Your task to perform on an android device: How much does a 2 bedroom apartment rent for in Washington DC? Image 0: 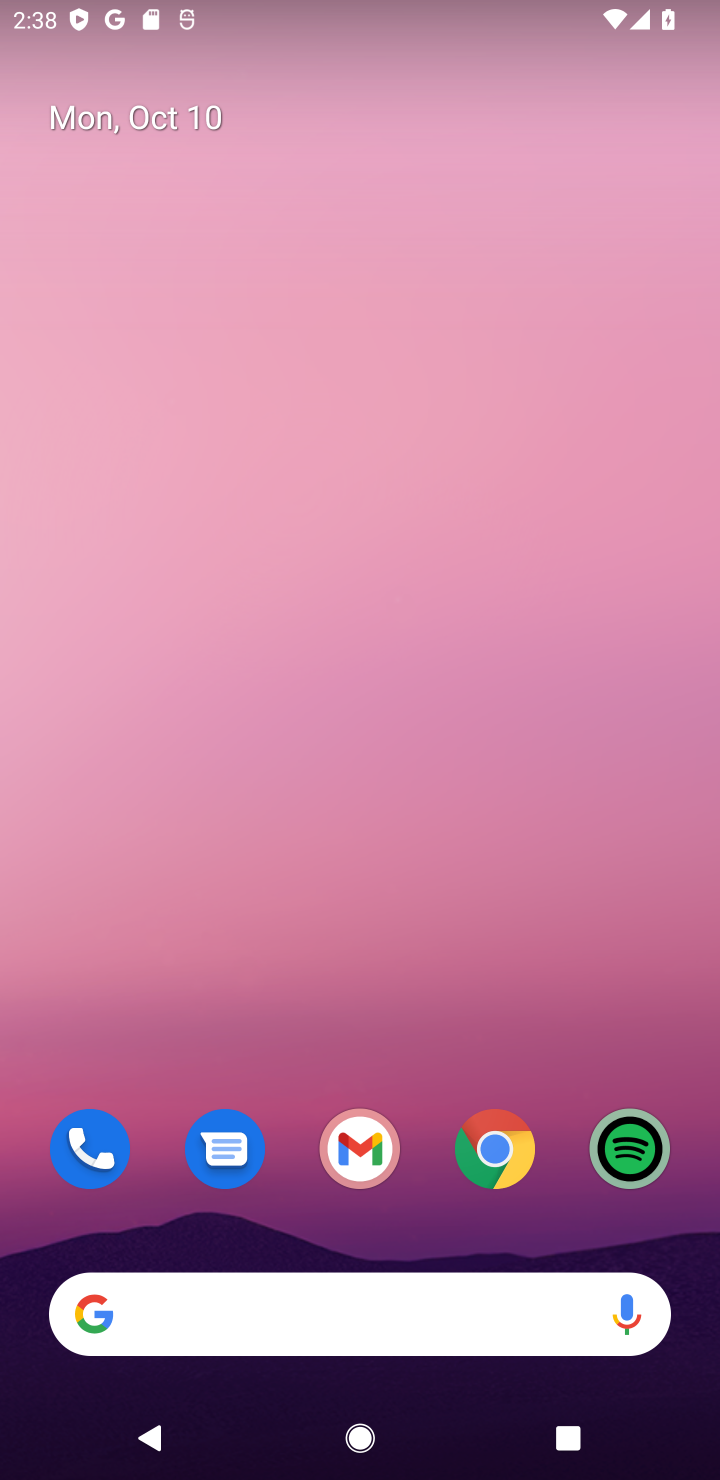
Step 0: click (262, 1289)
Your task to perform on an android device: How much does a 2 bedroom apartment rent for in Washington DC? Image 1: 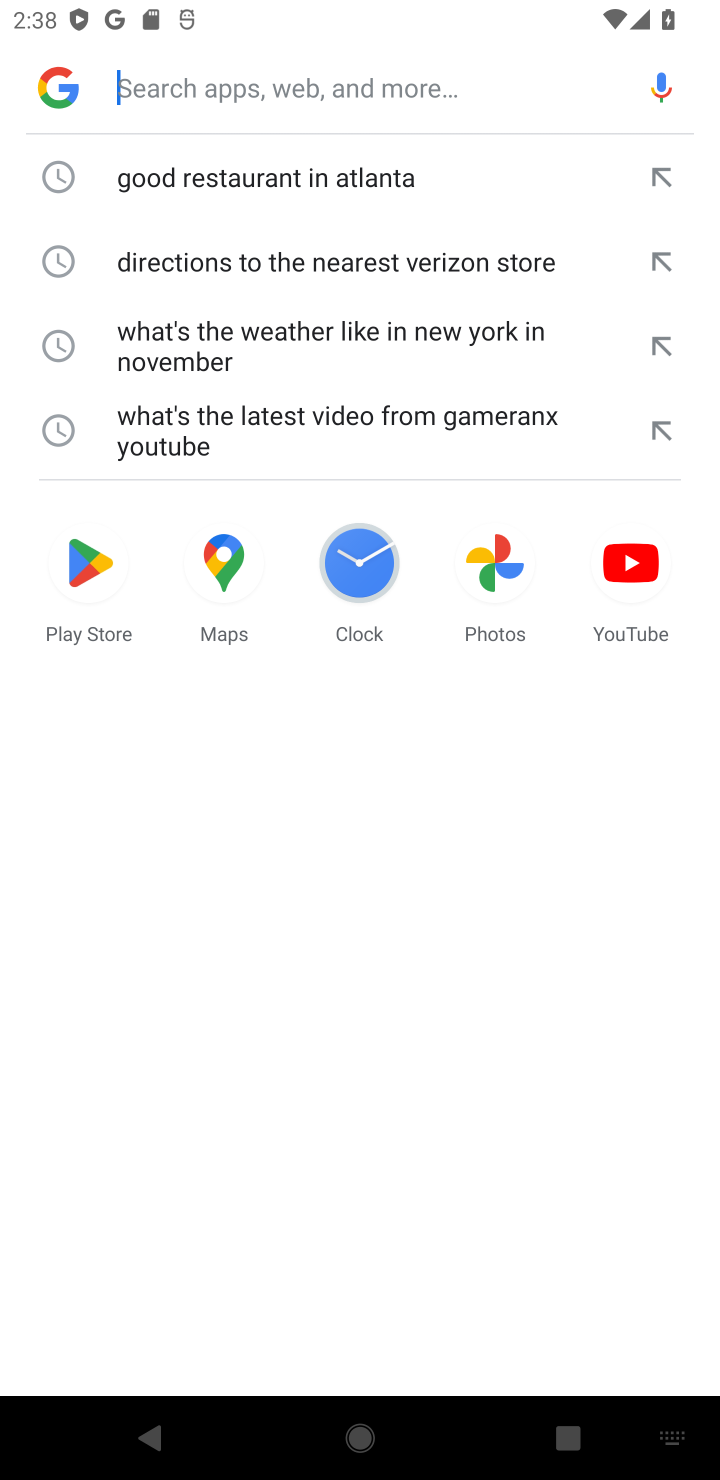
Step 1: type "2 bedroom apartment rent for in Washington DC"
Your task to perform on an android device: How much does a 2 bedroom apartment rent for in Washington DC? Image 2: 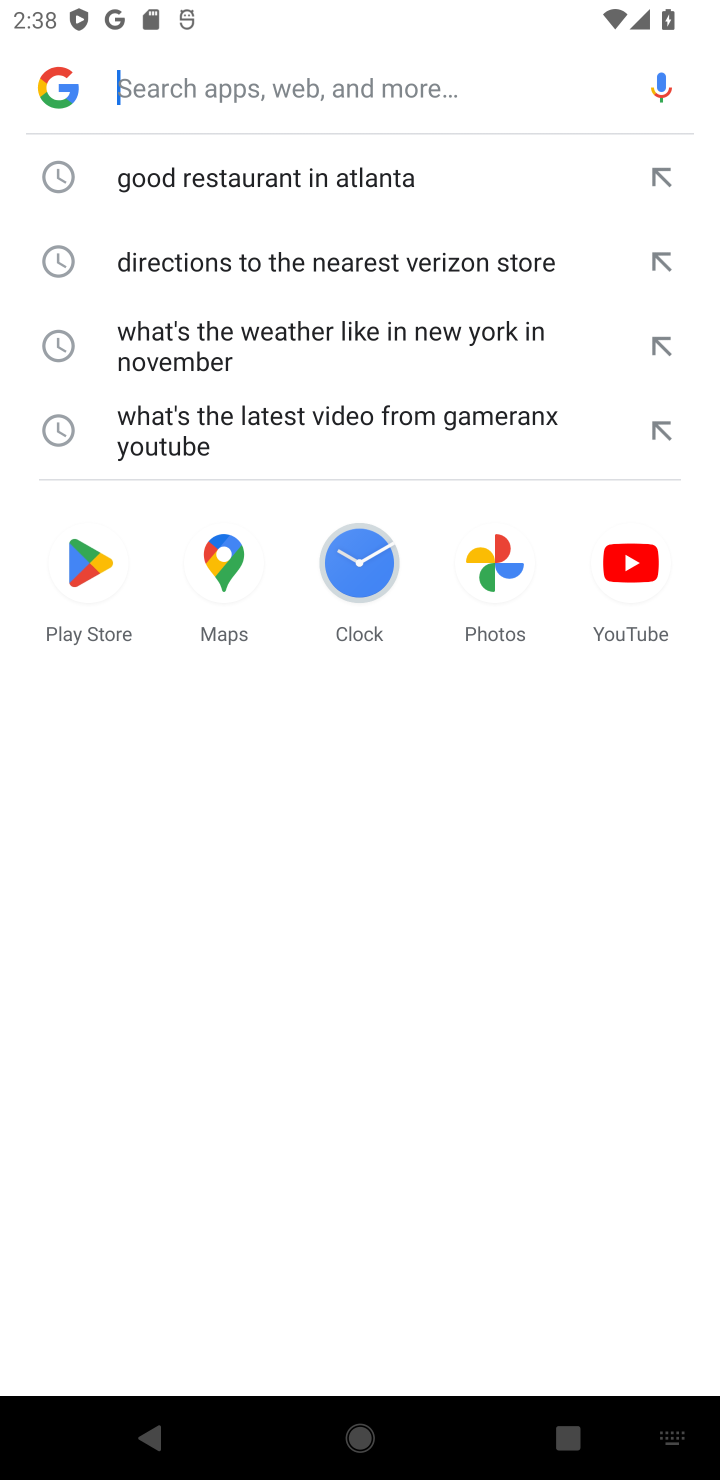
Step 2: click (237, 184)
Your task to perform on an android device: How much does a 2 bedroom apartment rent for in Washington DC? Image 3: 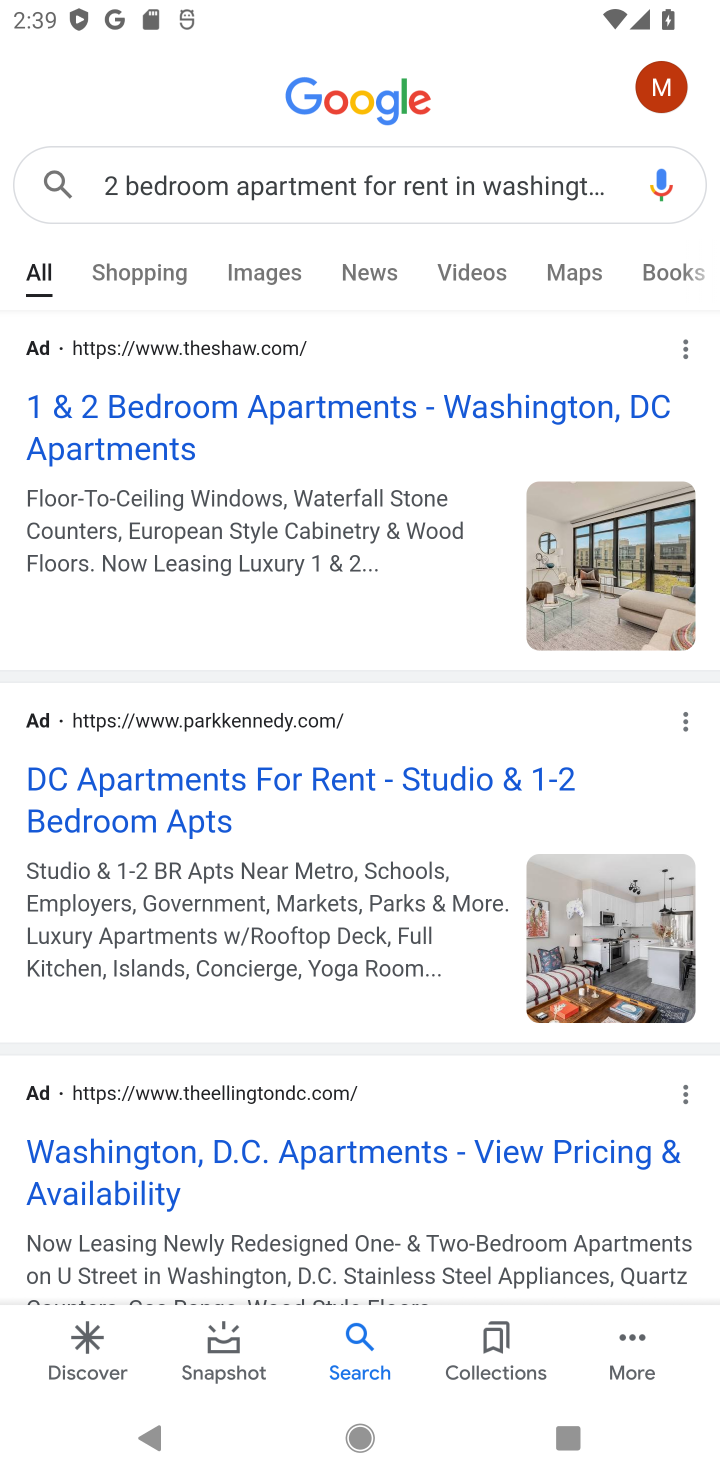
Step 3: click (166, 448)
Your task to perform on an android device: How much does a 2 bedroom apartment rent for in Washington DC? Image 4: 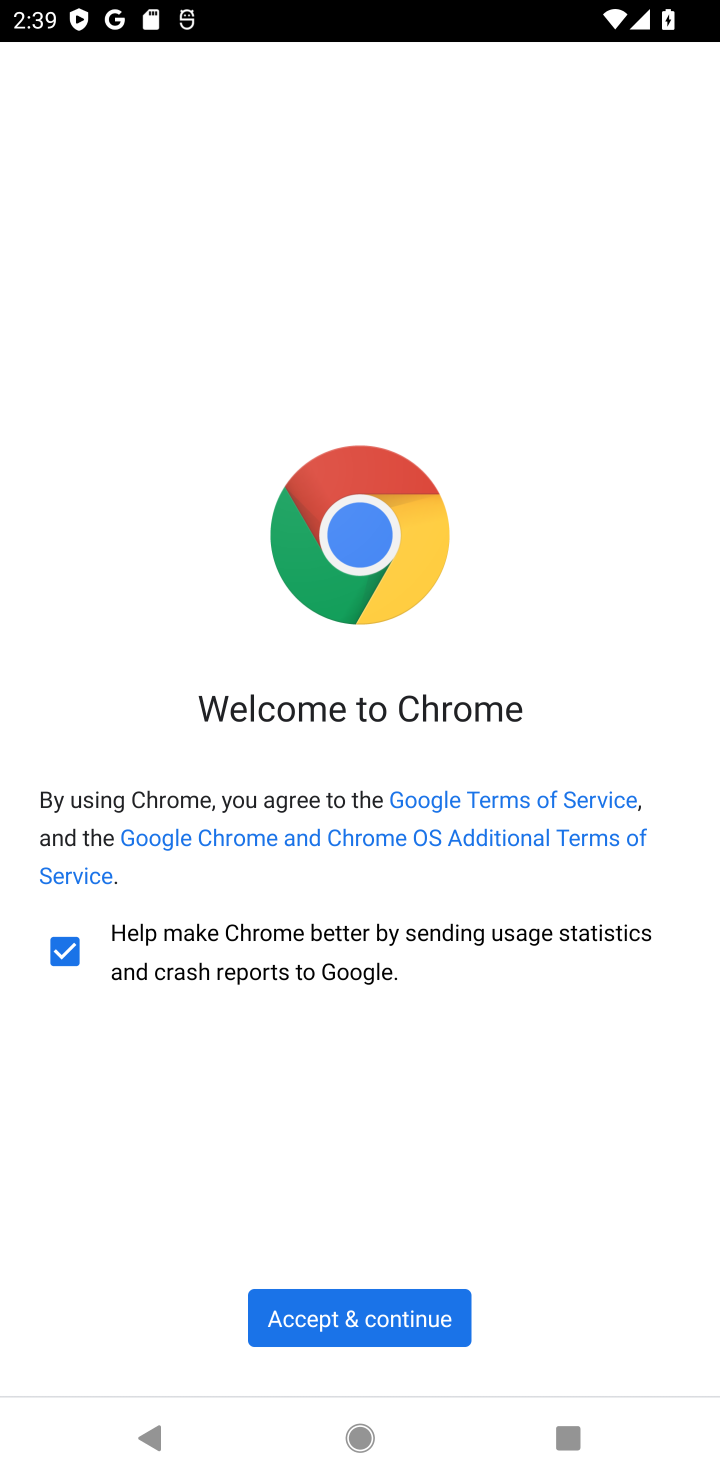
Step 4: click (274, 1304)
Your task to perform on an android device: How much does a 2 bedroom apartment rent for in Washington DC? Image 5: 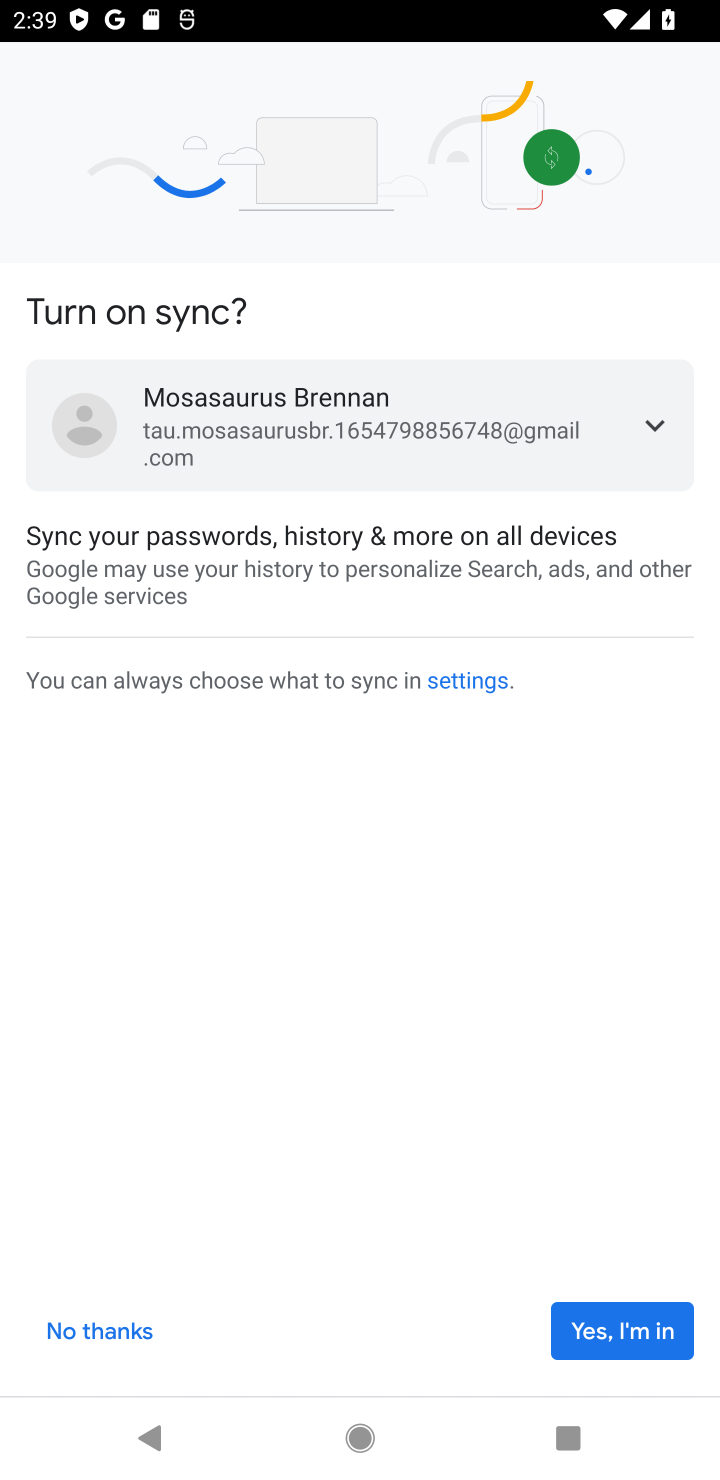
Step 5: click (652, 1328)
Your task to perform on an android device: How much does a 2 bedroom apartment rent for in Washington DC? Image 6: 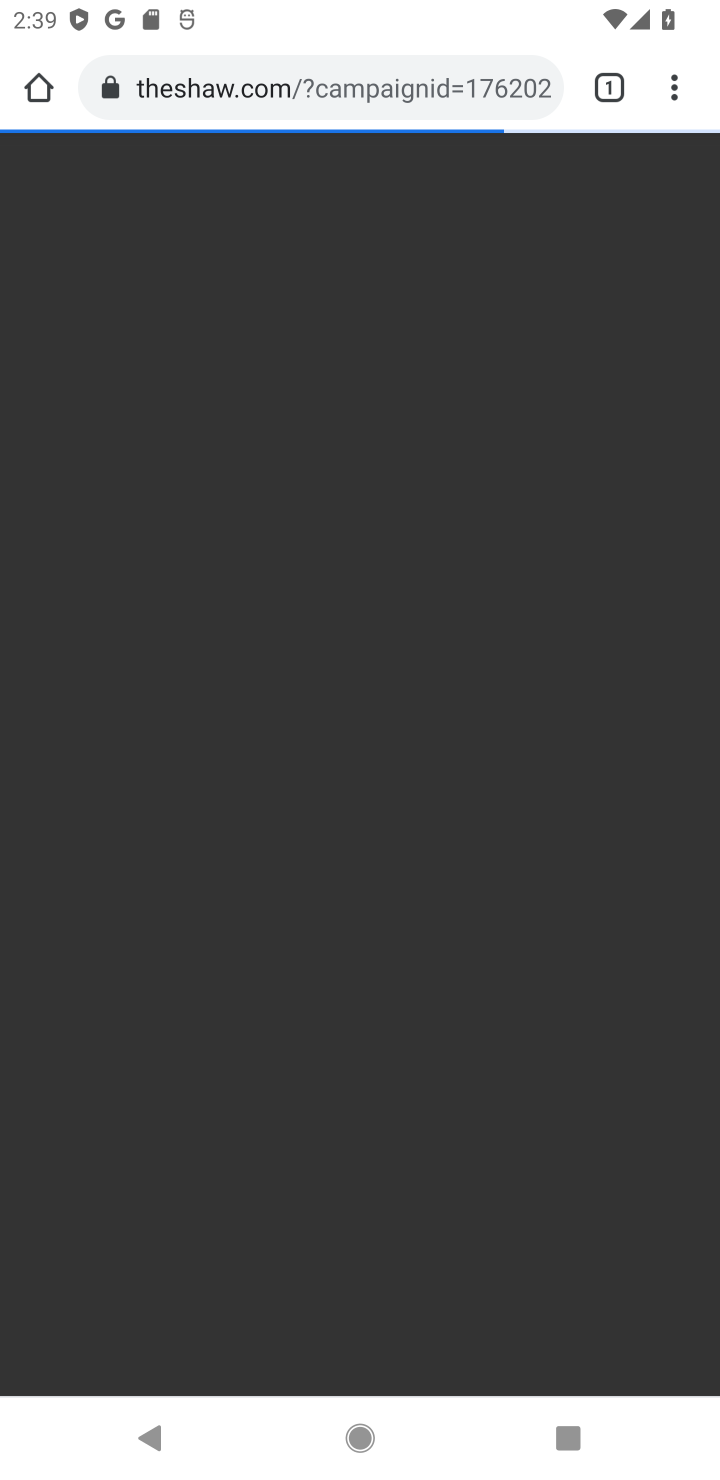
Step 6: task complete